Your task to perform on an android device: What's the weather? Image 0: 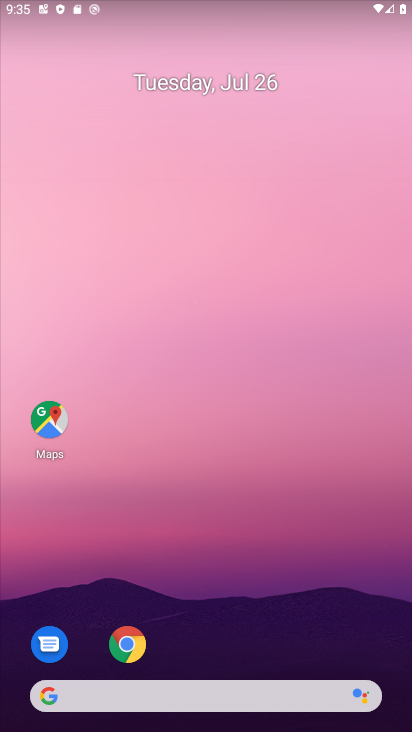
Step 0: click (196, 694)
Your task to perform on an android device: What's the weather? Image 1: 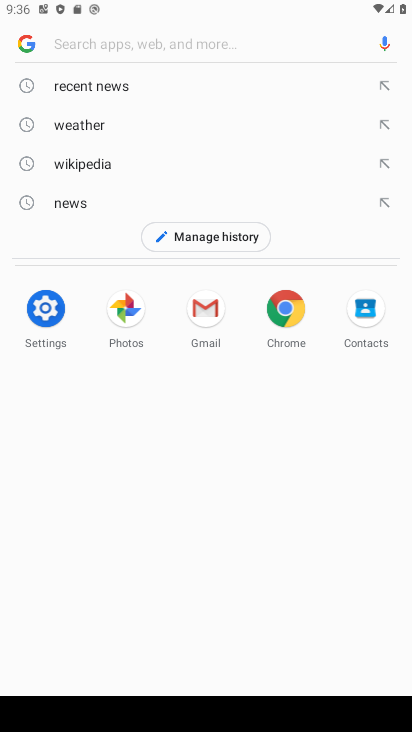
Step 1: click (98, 123)
Your task to perform on an android device: What's the weather? Image 2: 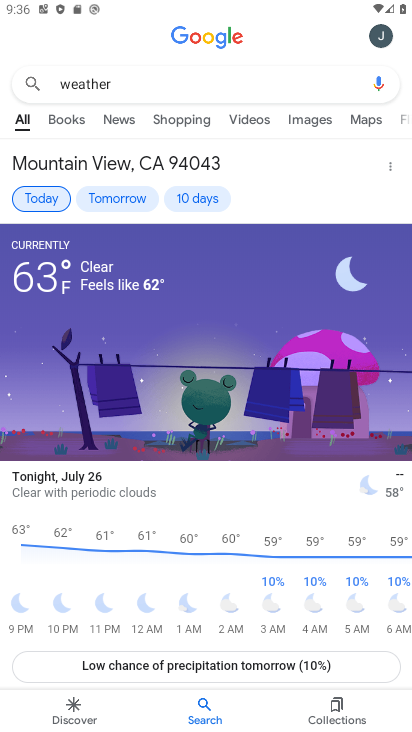
Step 2: task complete